Your task to perform on an android device: install app "Microsoft Excel" Image 0: 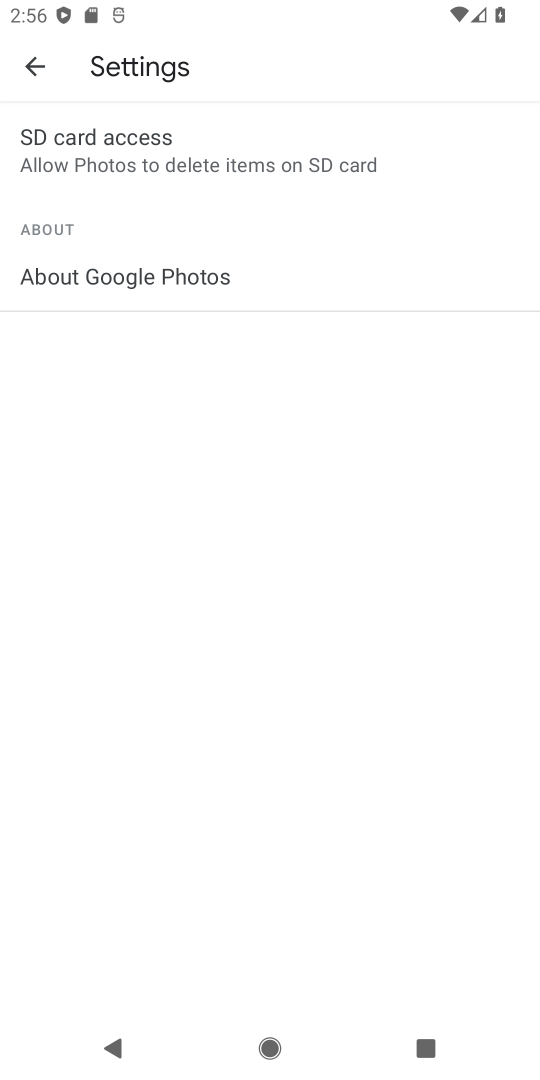
Step 0: press home button
Your task to perform on an android device: install app "Microsoft Excel" Image 1: 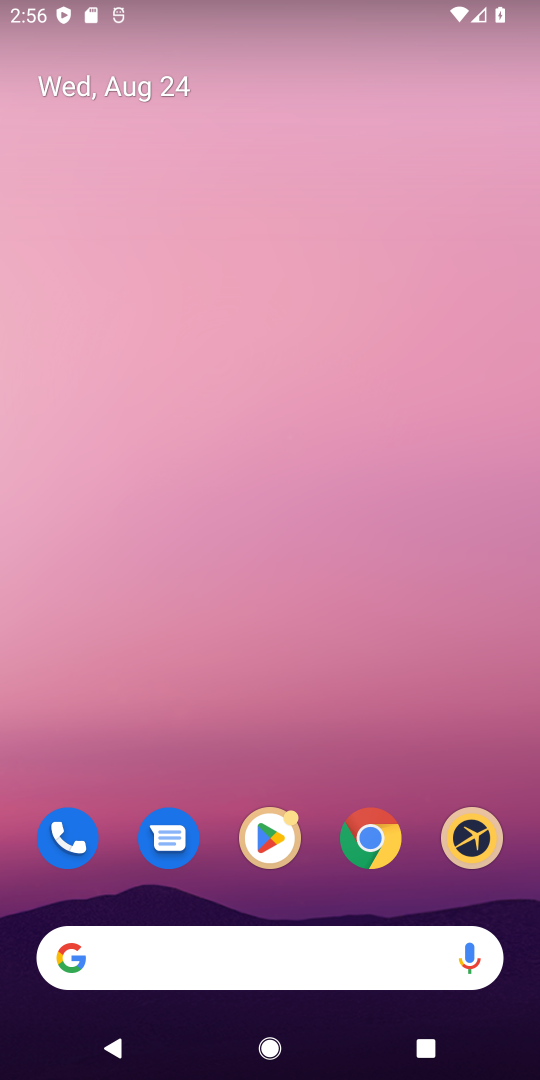
Step 1: drag from (413, 751) to (429, 135)
Your task to perform on an android device: install app "Microsoft Excel" Image 2: 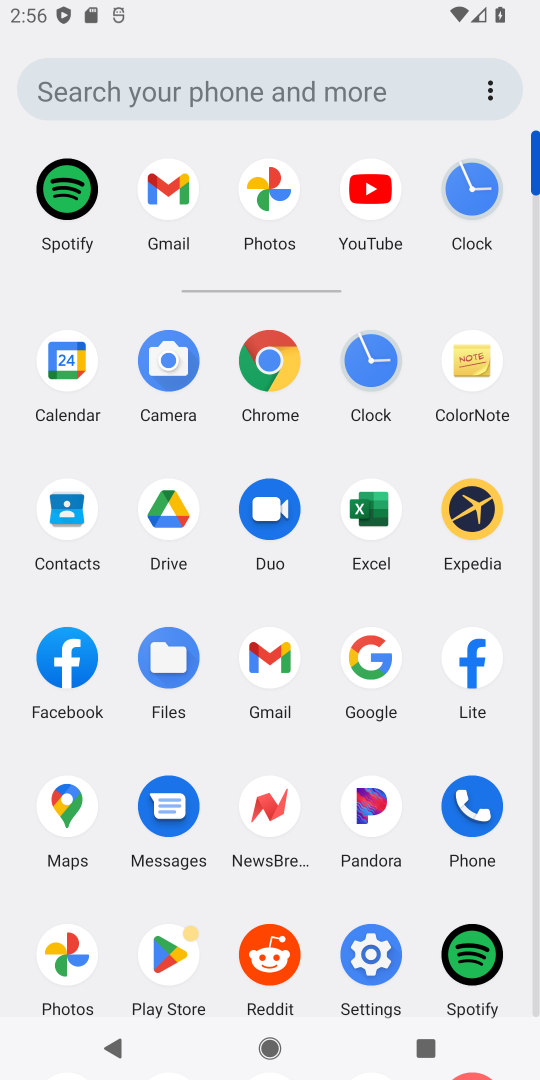
Step 2: click (173, 960)
Your task to perform on an android device: install app "Microsoft Excel" Image 3: 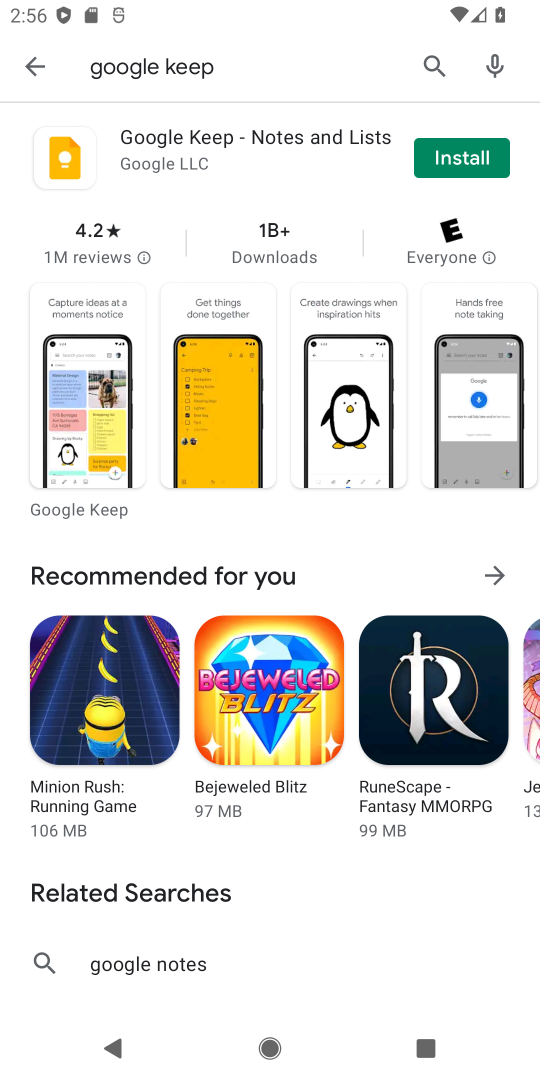
Step 3: press back button
Your task to perform on an android device: install app "Microsoft Excel" Image 4: 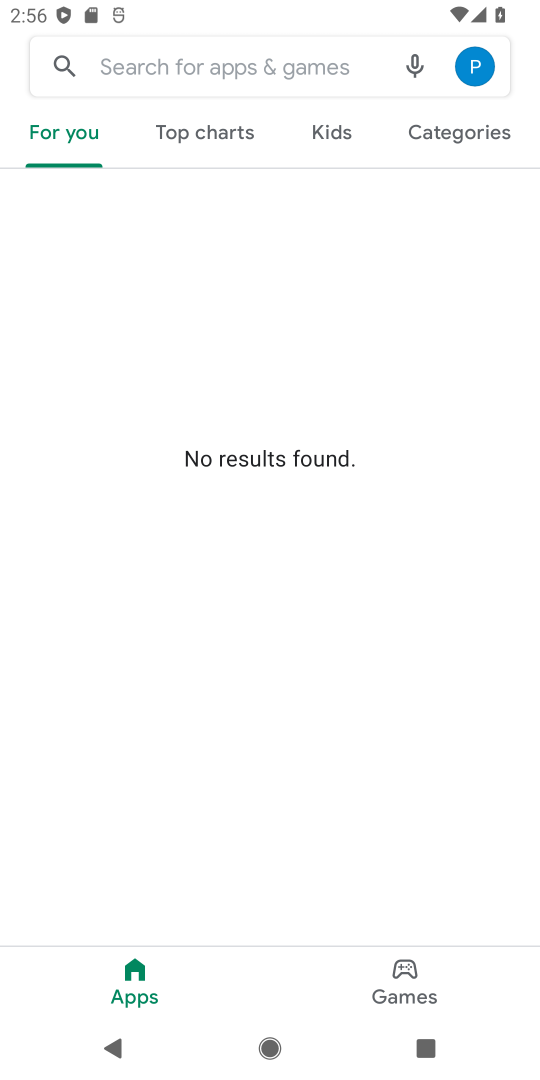
Step 4: click (307, 70)
Your task to perform on an android device: install app "Microsoft Excel" Image 5: 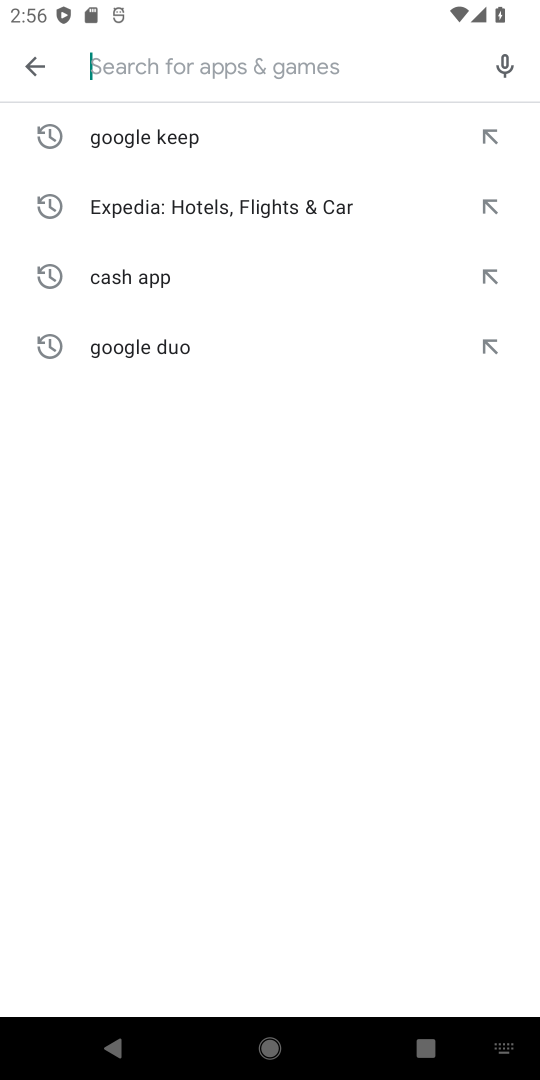
Step 5: type "Microsoft Excel"
Your task to perform on an android device: install app "Microsoft Excel" Image 6: 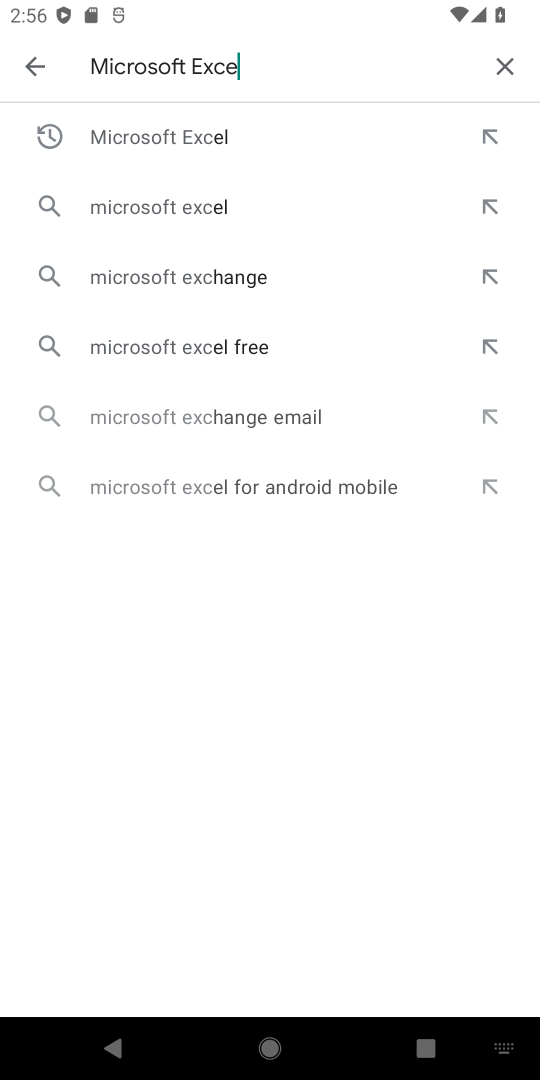
Step 6: press enter
Your task to perform on an android device: install app "Microsoft Excel" Image 7: 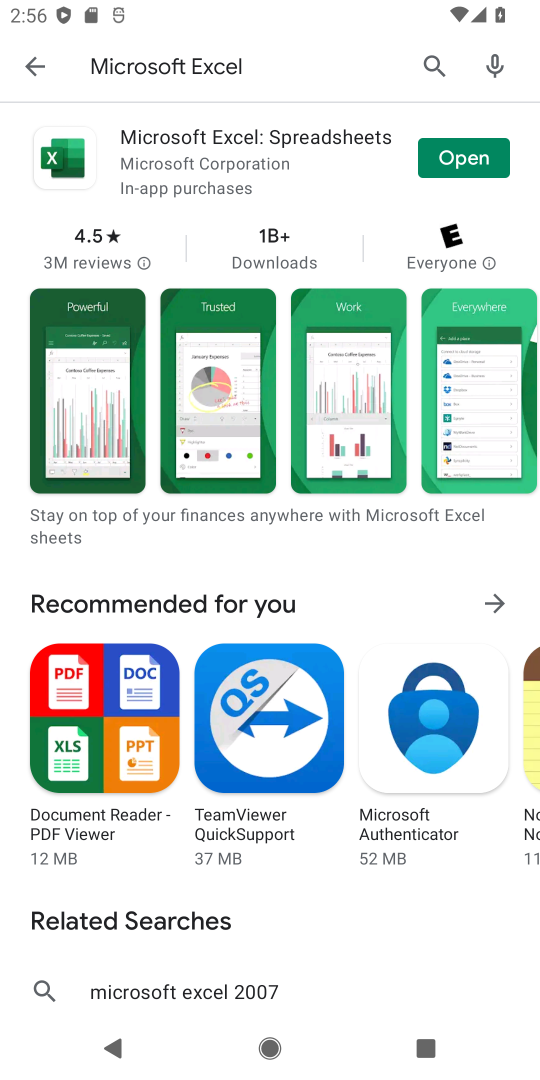
Step 7: task complete